Your task to perform on an android device: uninstall "Messenger Lite" Image 0: 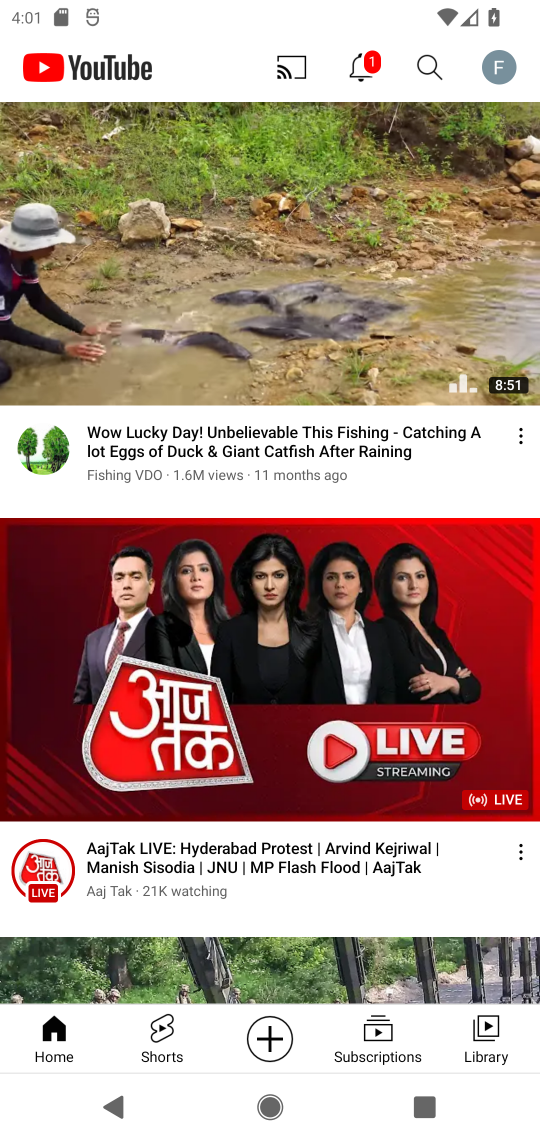
Step 0: press home button
Your task to perform on an android device: uninstall "Messenger Lite" Image 1: 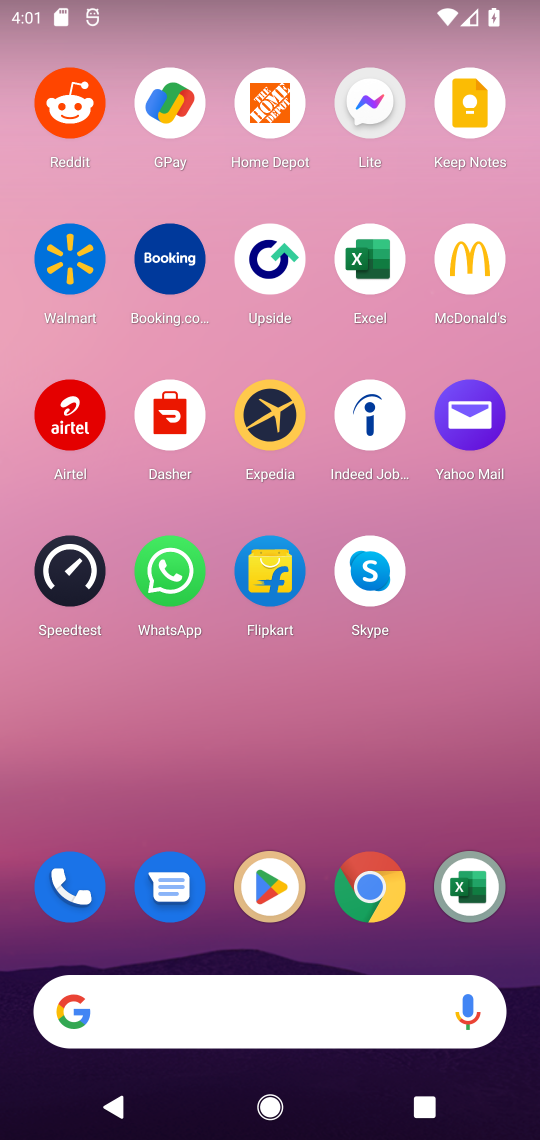
Step 1: click (273, 894)
Your task to perform on an android device: uninstall "Messenger Lite" Image 2: 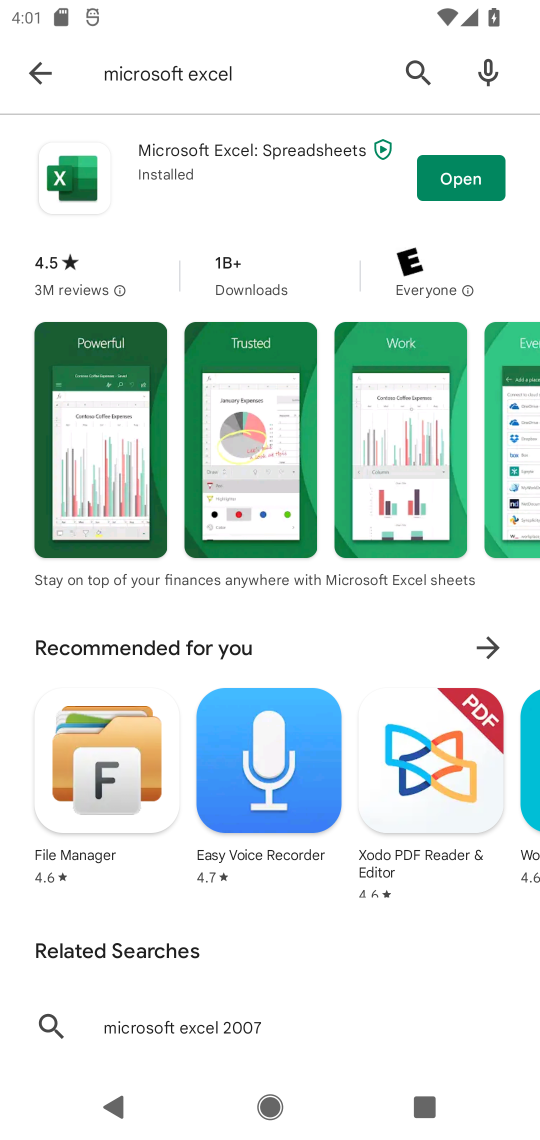
Step 2: click (44, 67)
Your task to perform on an android device: uninstall "Messenger Lite" Image 3: 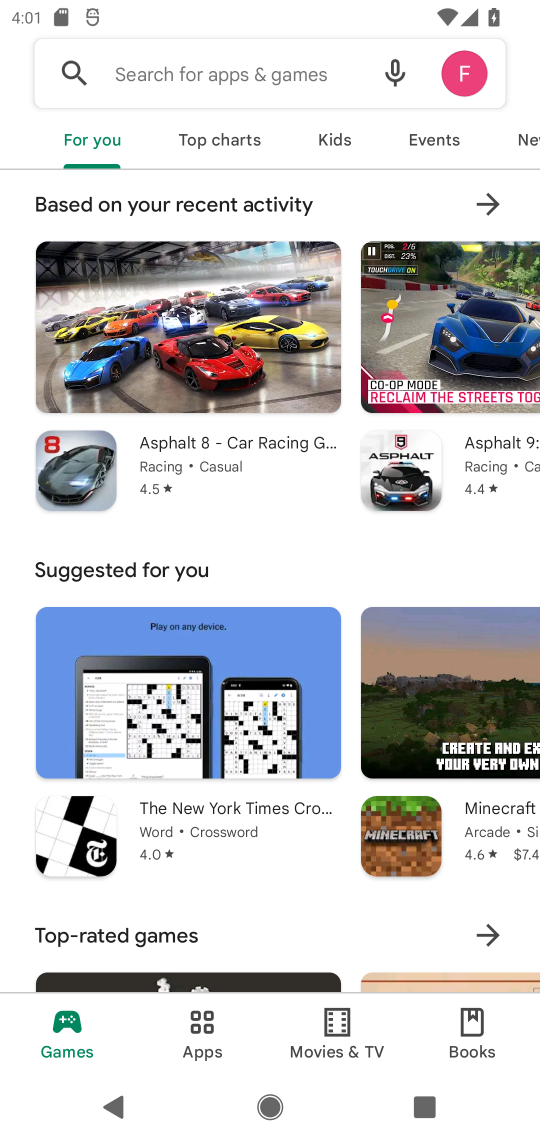
Step 3: click (172, 74)
Your task to perform on an android device: uninstall "Messenger Lite" Image 4: 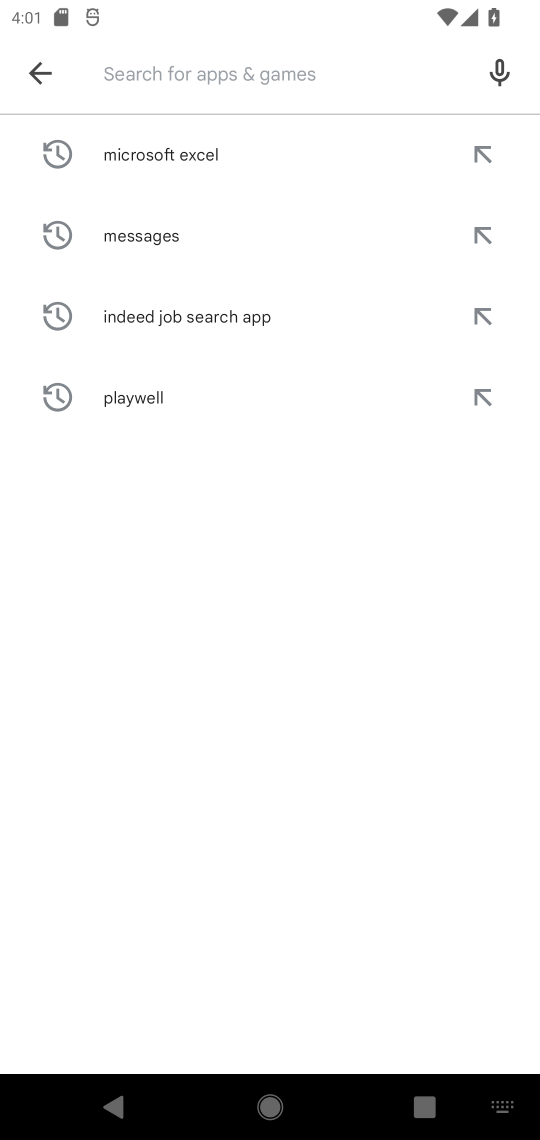
Step 4: type "Messenger Lite"
Your task to perform on an android device: uninstall "Messenger Lite" Image 5: 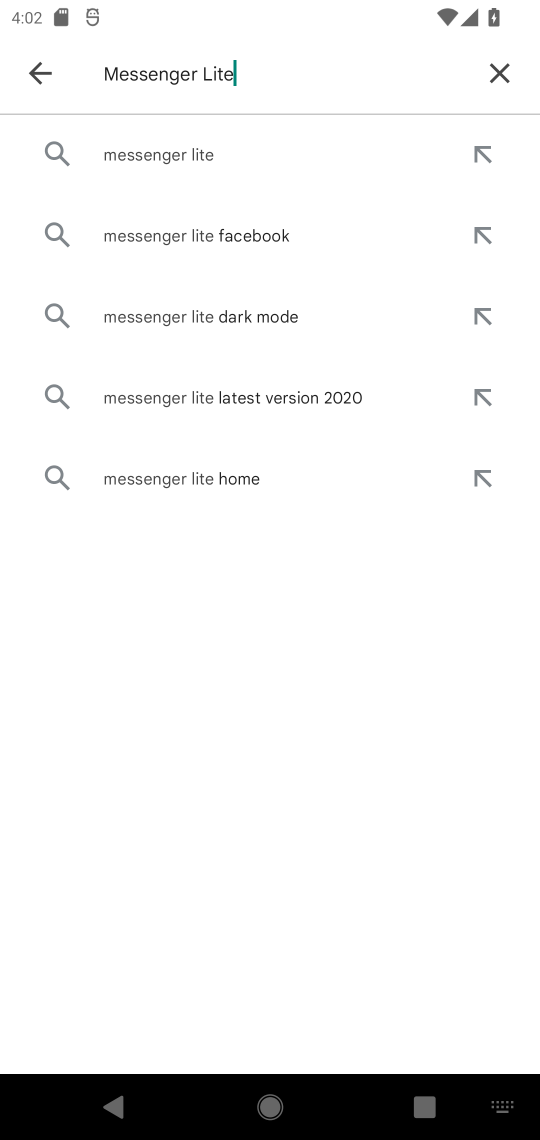
Step 5: click (172, 163)
Your task to perform on an android device: uninstall "Messenger Lite" Image 6: 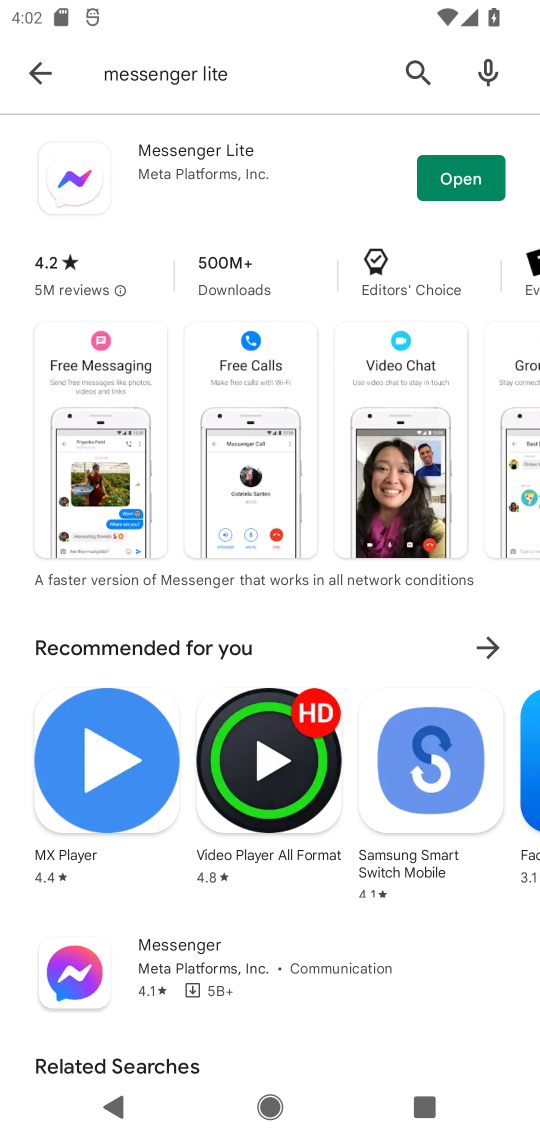
Step 6: click (172, 163)
Your task to perform on an android device: uninstall "Messenger Lite" Image 7: 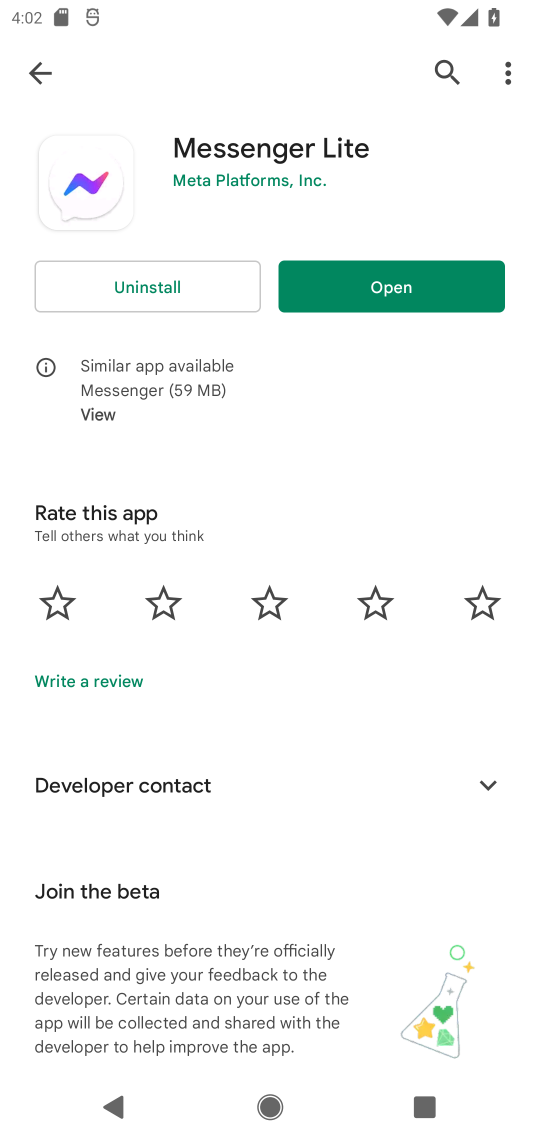
Step 7: click (123, 283)
Your task to perform on an android device: uninstall "Messenger Lite" Image 8: 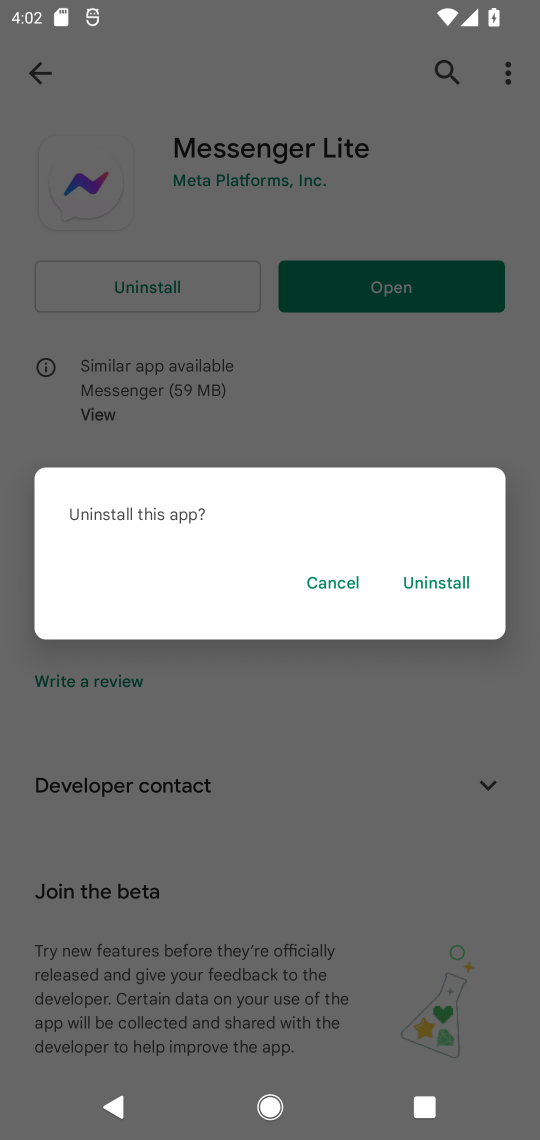
Step 8: click (415, 576)
Your task to perform on an android device: uninstall "Messenger Lite" Image 9: 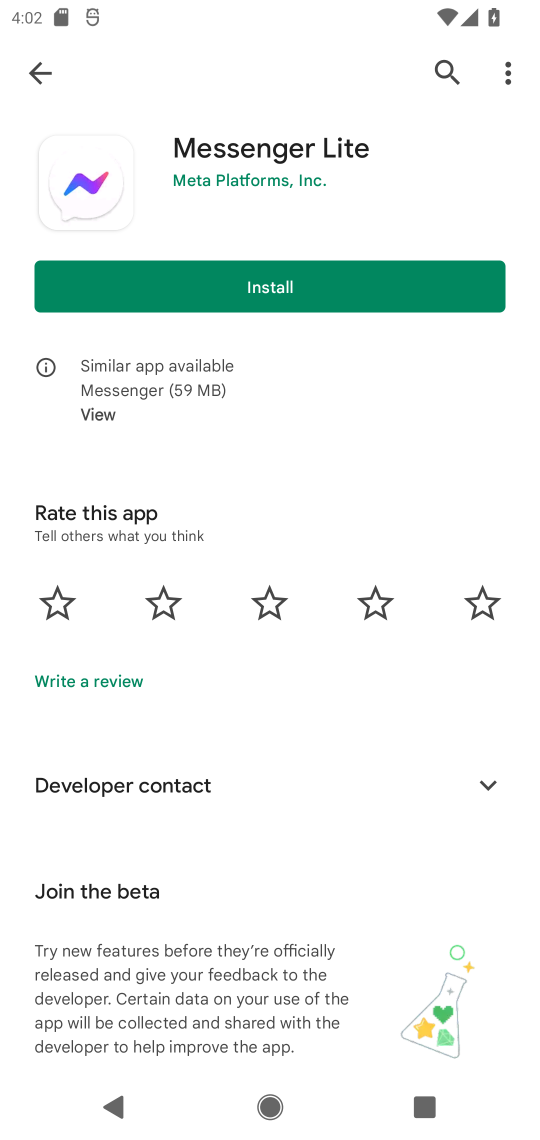
Step 9: task complete